Your task to perform on an android device: open app "Google Chrome" (install if not already installed) Image 0: 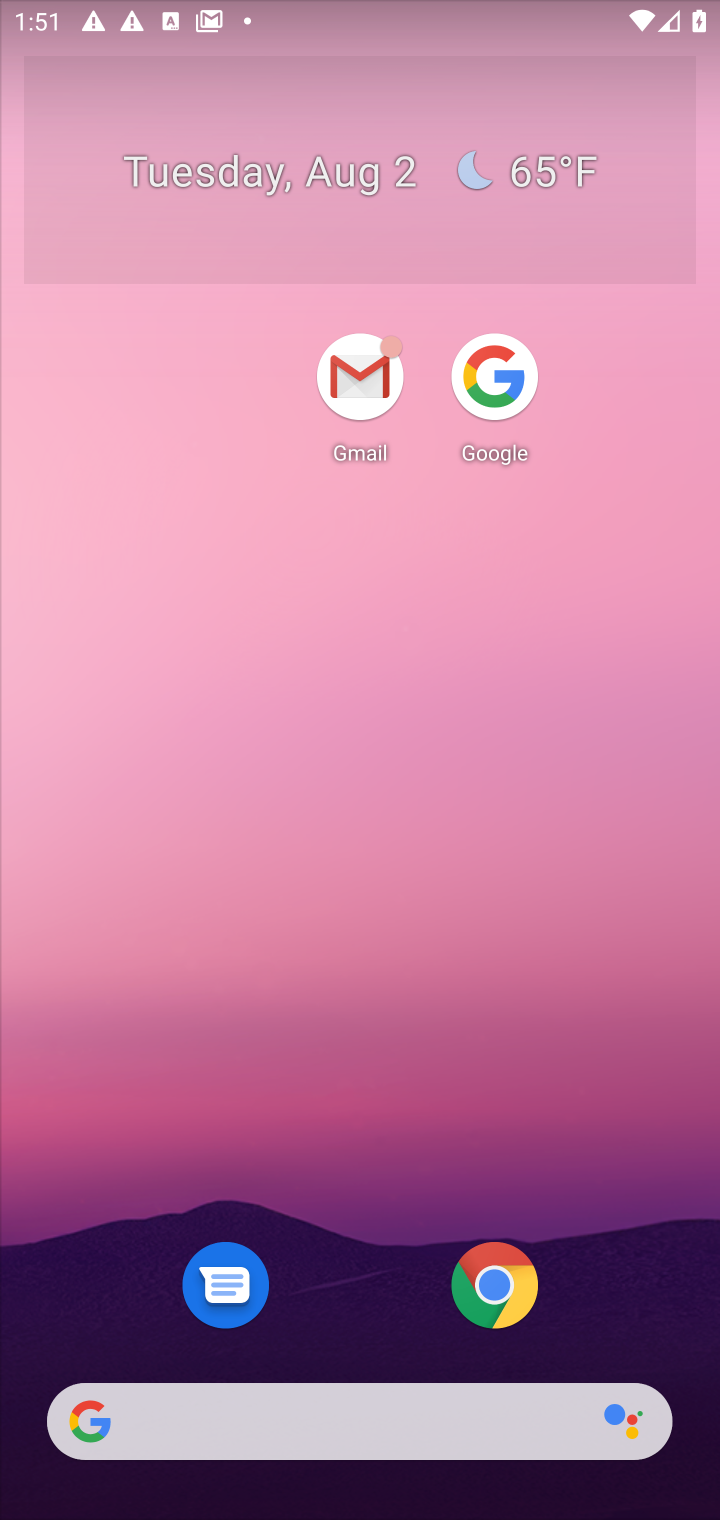
Step 0: drag from (548, 456) to (548, 131)
Your task to perform on an android device: open app "Google Chrome" (install if not already installed) Image 1: 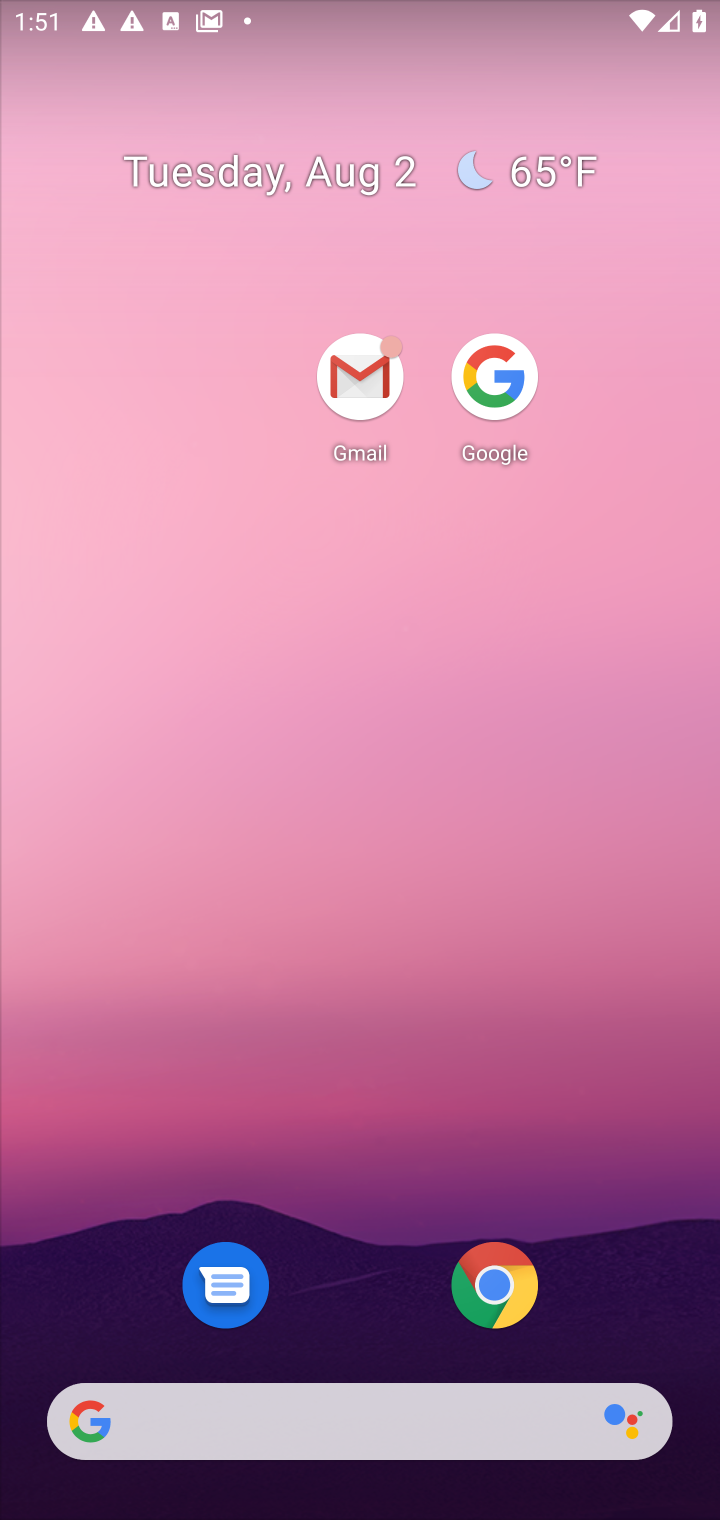
Step 1: click (287, 938)
Your task to perform on an android device: open app "Google Chrome" (install if not already installed) Image 2: 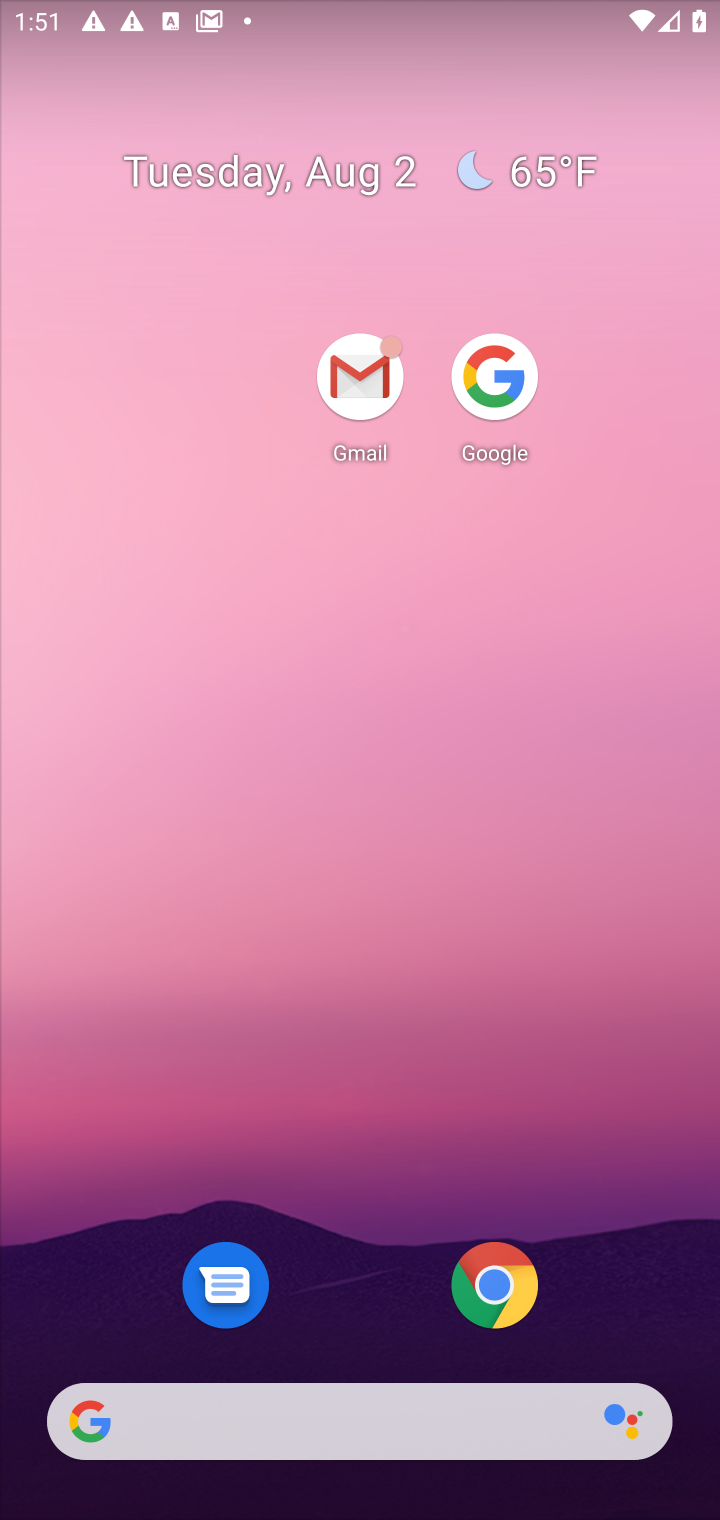
Step 2: drag from (390, 1318) to (484, 62)
Your task to perform on an android device: open app "Google Chrome" (install if not already installed) Image 3: 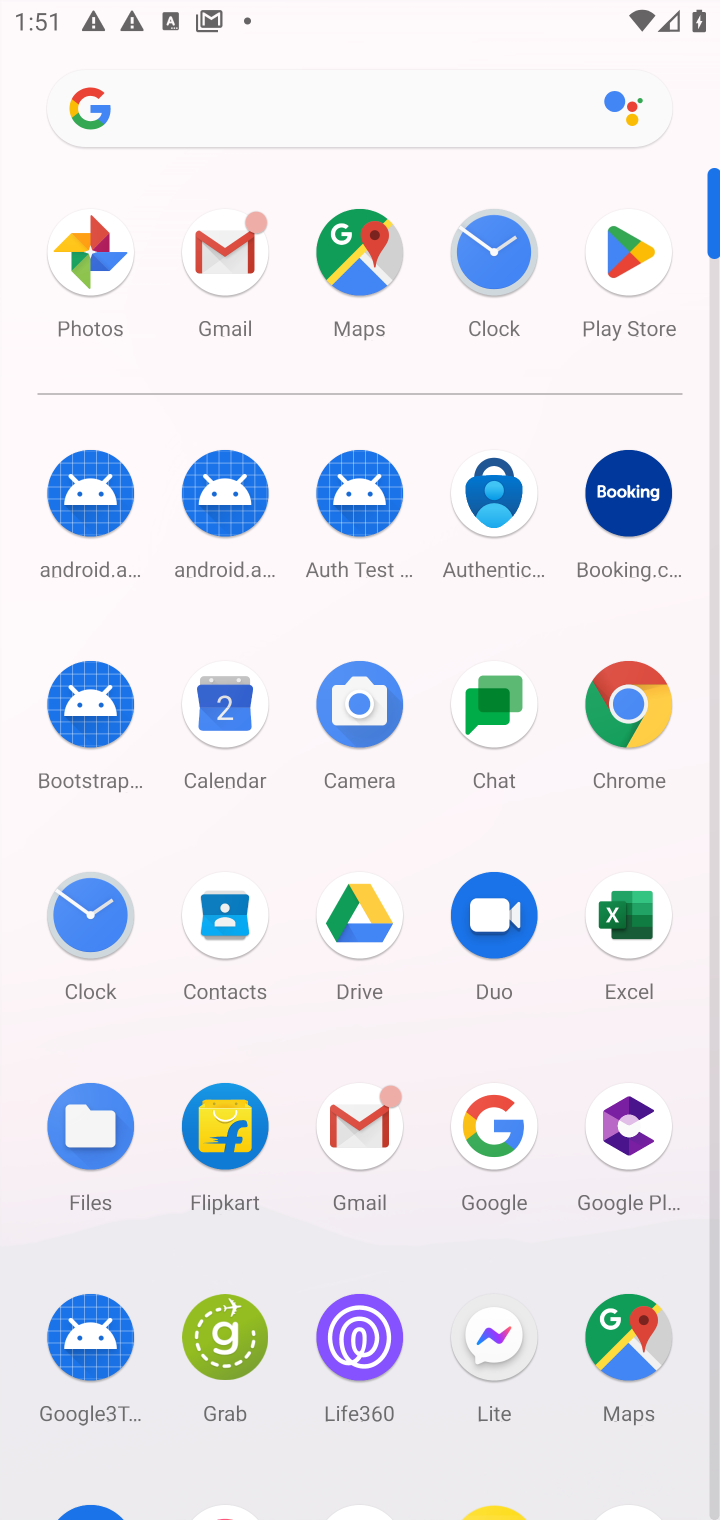
Step 3: drag from (406, 1200) to (437, 496)
Your task to perform on an android device: open app "Google Chrome" (install if not already installed) Image 4: 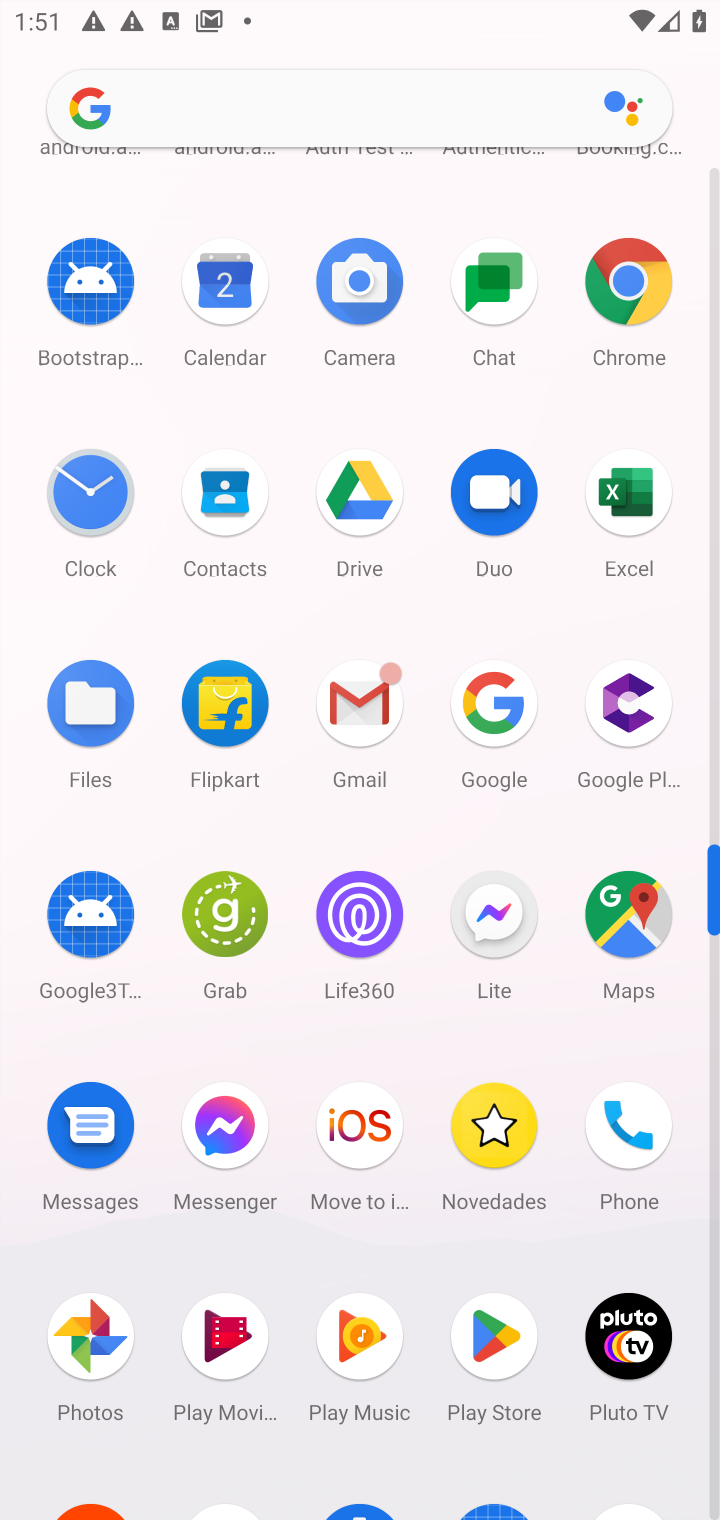
Step 4: click (476, 1316)
Your task to perform on an android device: open app "Google Chrome" (install if not already installed) Image 5: 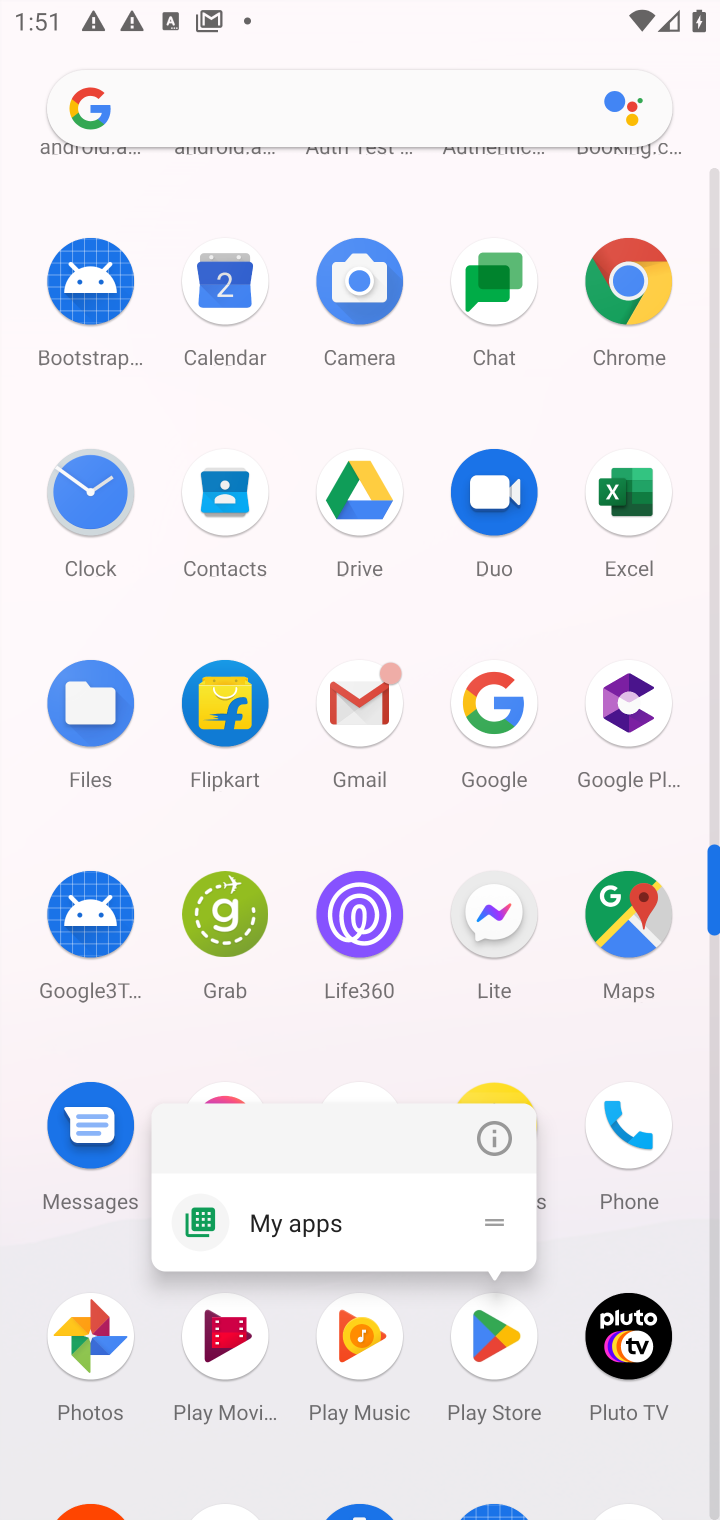
Step 5: click (494, 1336)
Your task to perform on an android device: open app "Google Chrome" (install if not already installed) Image 6: 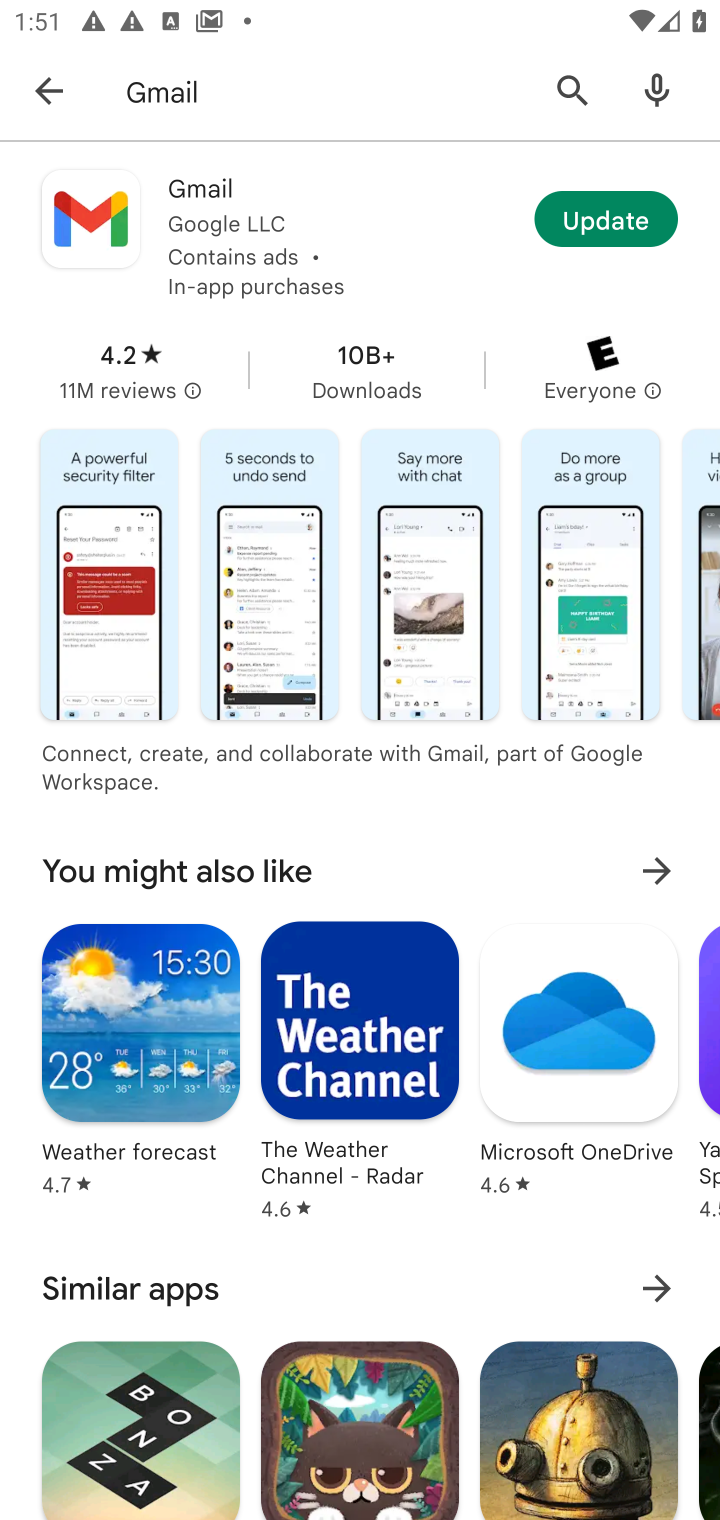
Step 6: click (487, 83)
Your task to perform on an android device: open app "Google Chrome" (install if not already installed) Image 7: 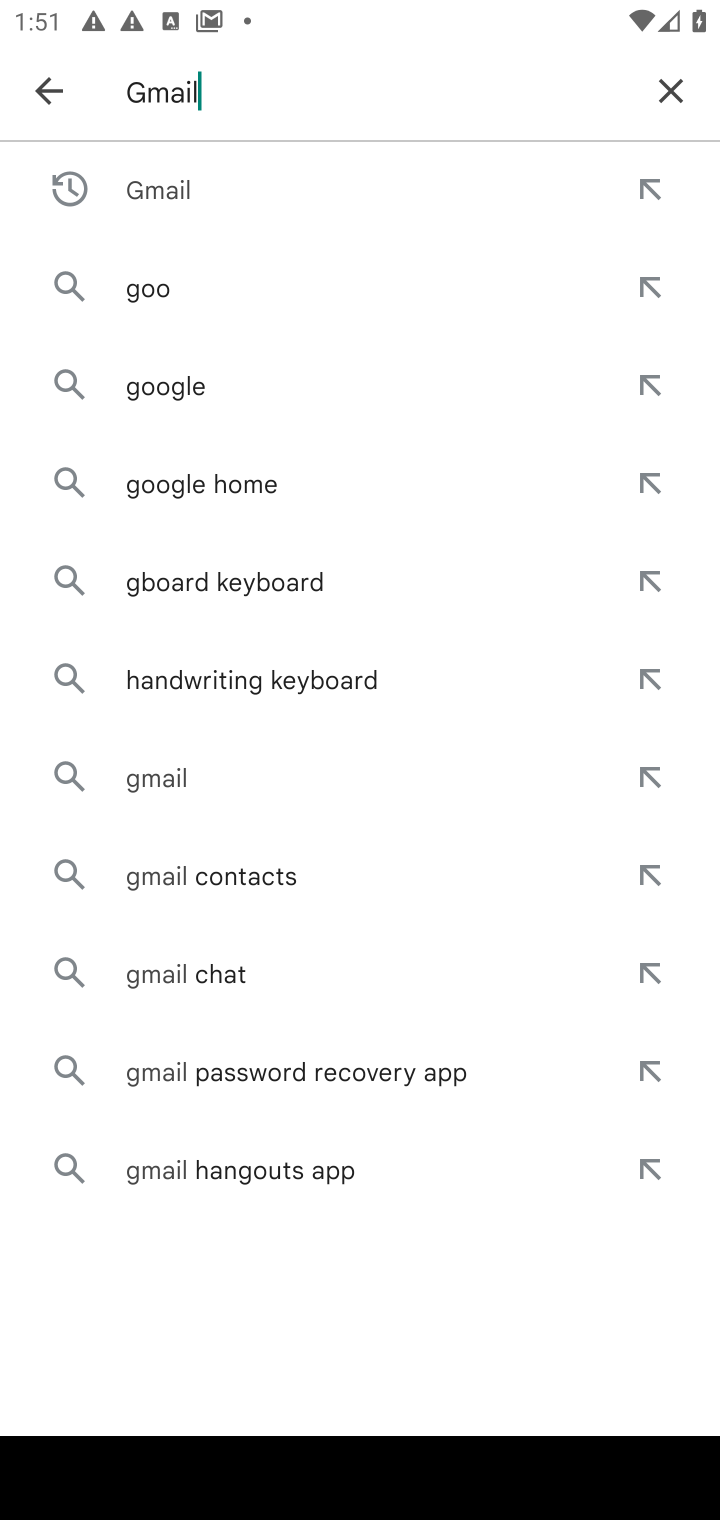
Step 7: click (660, 84)
Your task to perform on an android device: open app "Google Chrome" (install if not already installed) Image 8: 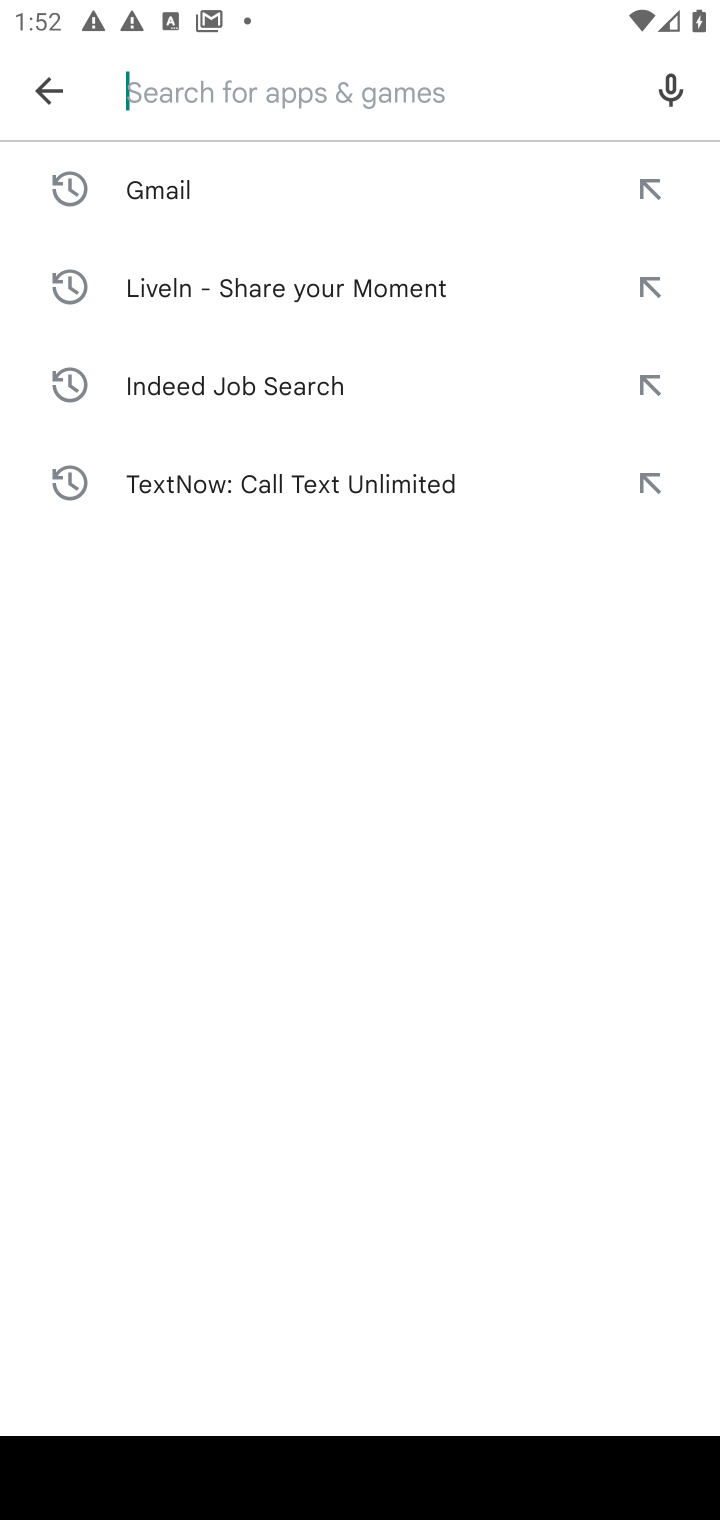
Step 8: type "Google Chrome"
Your task to perform on an android device: open app "Google Chrome" (install if not already installed) Image 9: 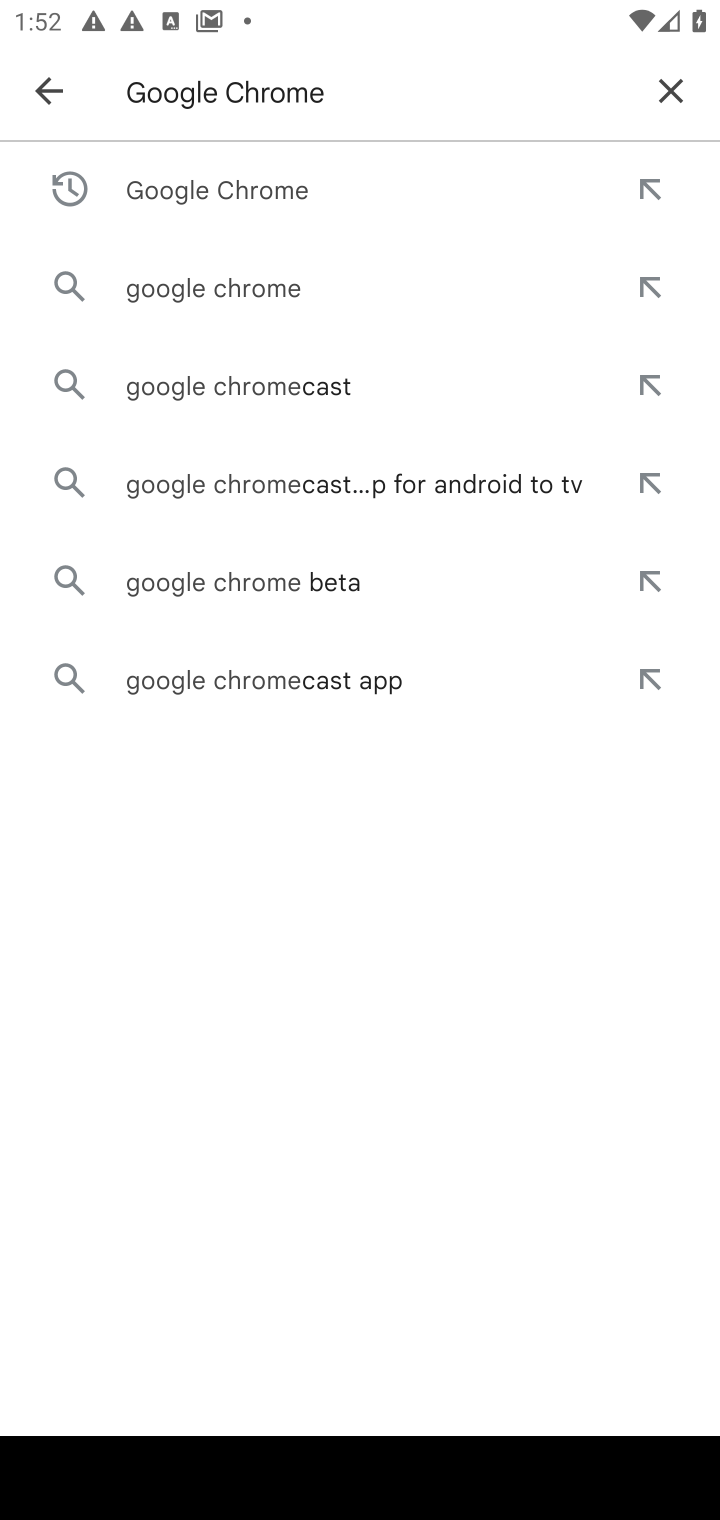
Step 9: press enter
Your task to perform on an android device: open app "Google Chrome" (install if not already installed) Image 10: 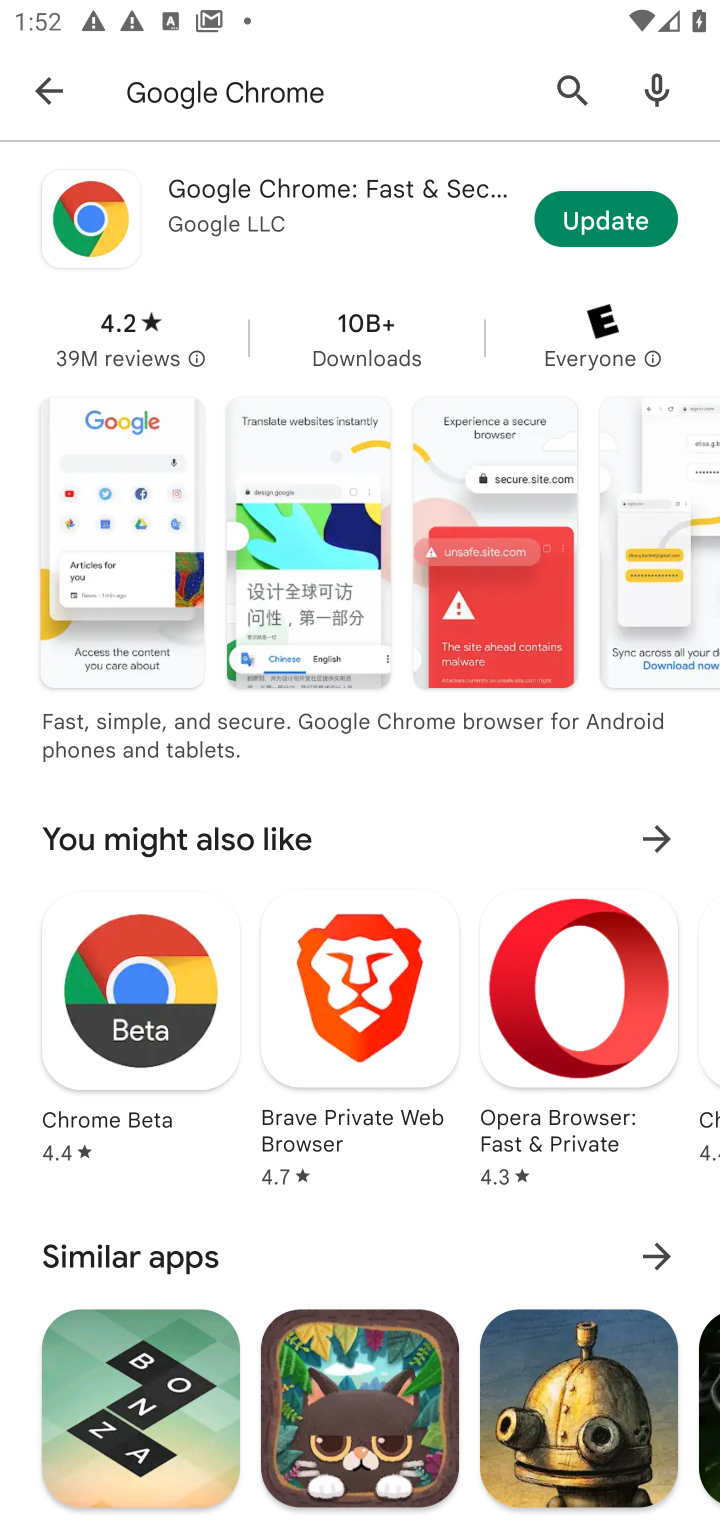
Step 10: click (258, 227)
Your task to perform on an android device: open app "Google Chrome" (install if not already installed) Image 11: 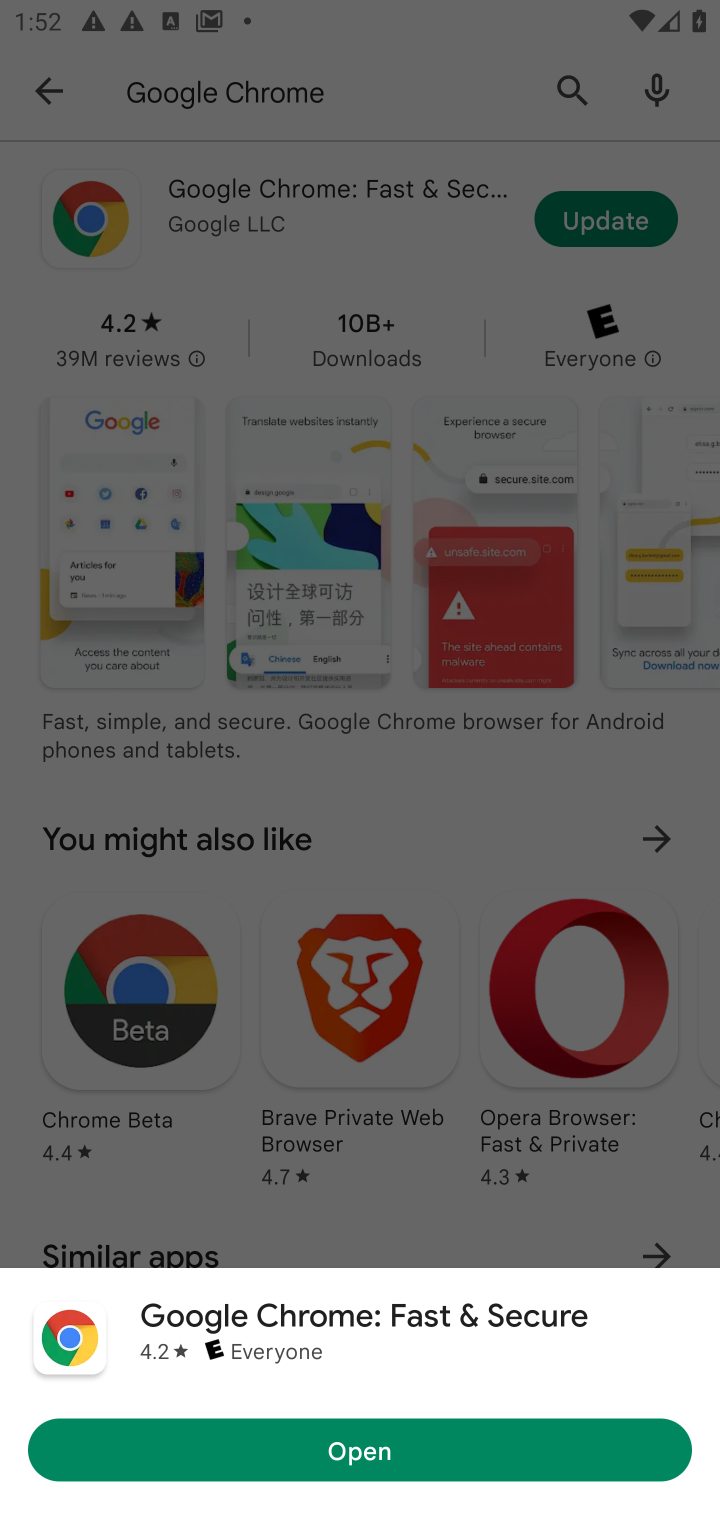
Step 11: click (507, 1438)
Your task to perform on an android device: open app "Google Chrome" (install if not already installed) Image 12: 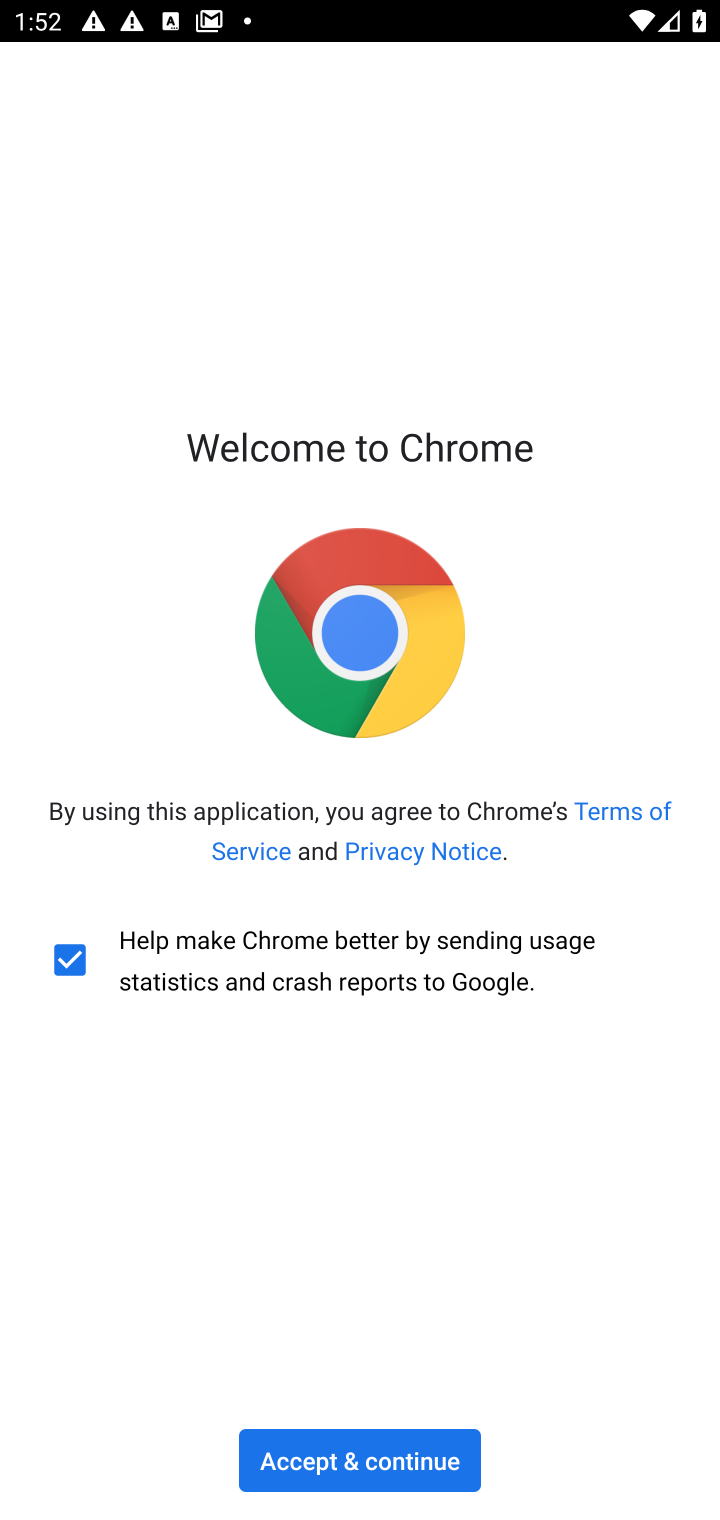
Step 12: task complete